Your task to perform on an android device: Go to Maps Image 0: 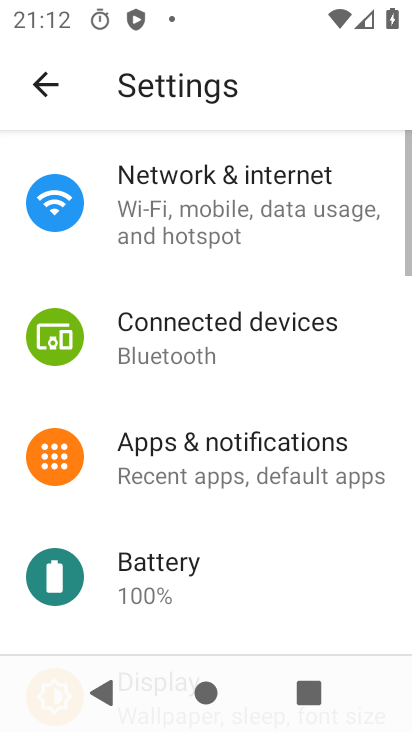
Step 0: press home button
Your task to perform on an android device: Go to Maps Image 1: 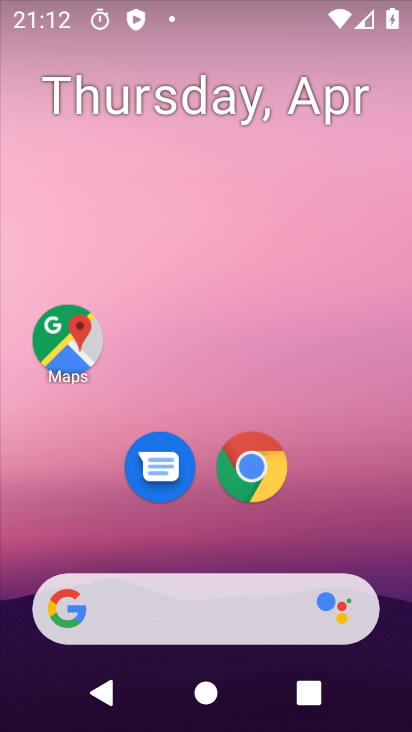
Step 1: drag from (200, 562) to (385, 540)
Your task to perform on an android device: Go to Maps Image 2: 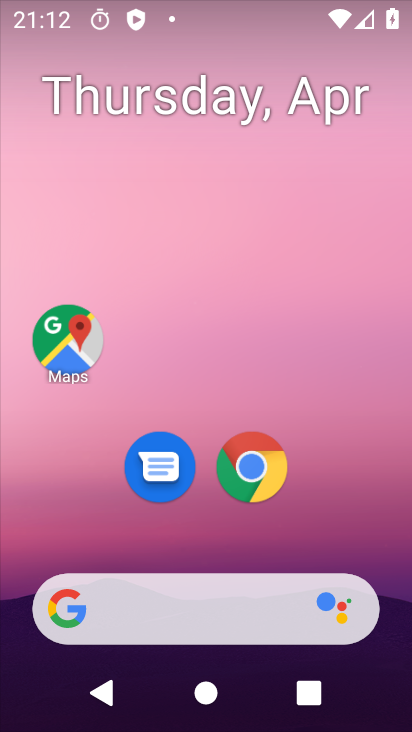
Step 2: drag from (220, 560) to (255, 1)
Your task to perform on an android device: Go to Maps Image 3: 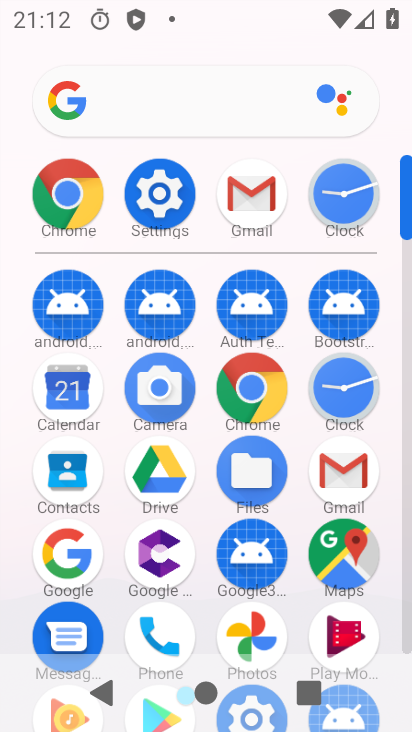
Step 3: click (345, 564)
Your task to perform on an android device: Go to Maps Image 4: 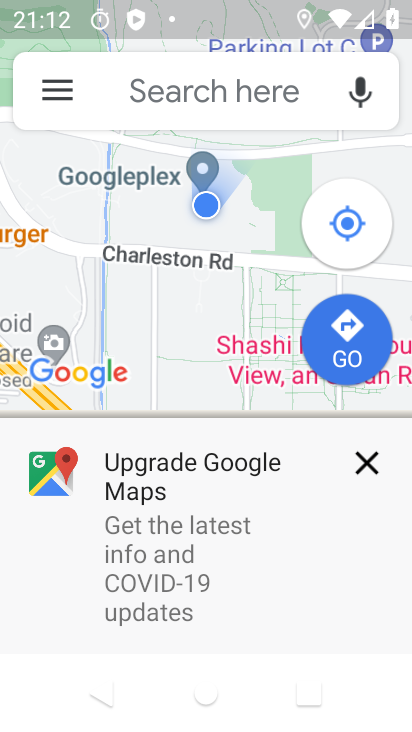
Step 4: drag from (170, 282) to (217, 476)
Your task to perform on an android device: Go to Maps Image 5: 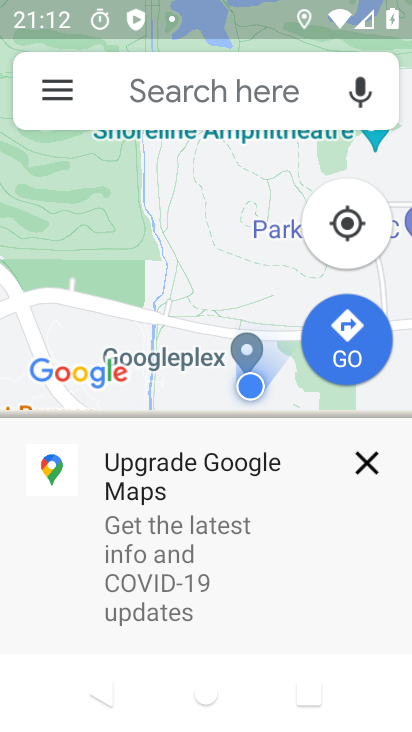
Step 5: click (363, 461)
Your task to perform on an android device: Go to Maps Image 6: 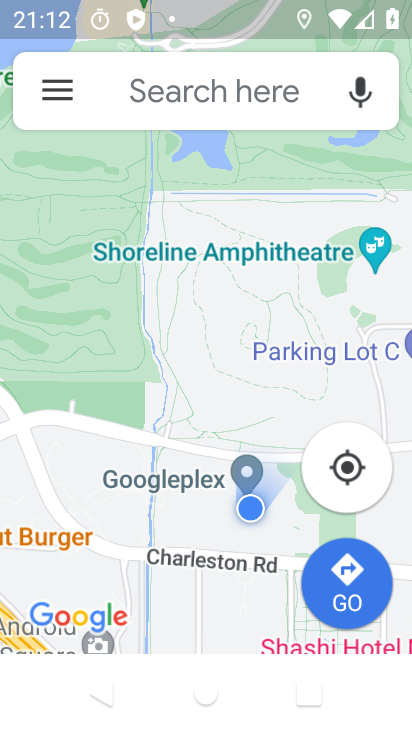
Step 6: task complete